Your task to perform on an android device: open wifi settings Image 0: 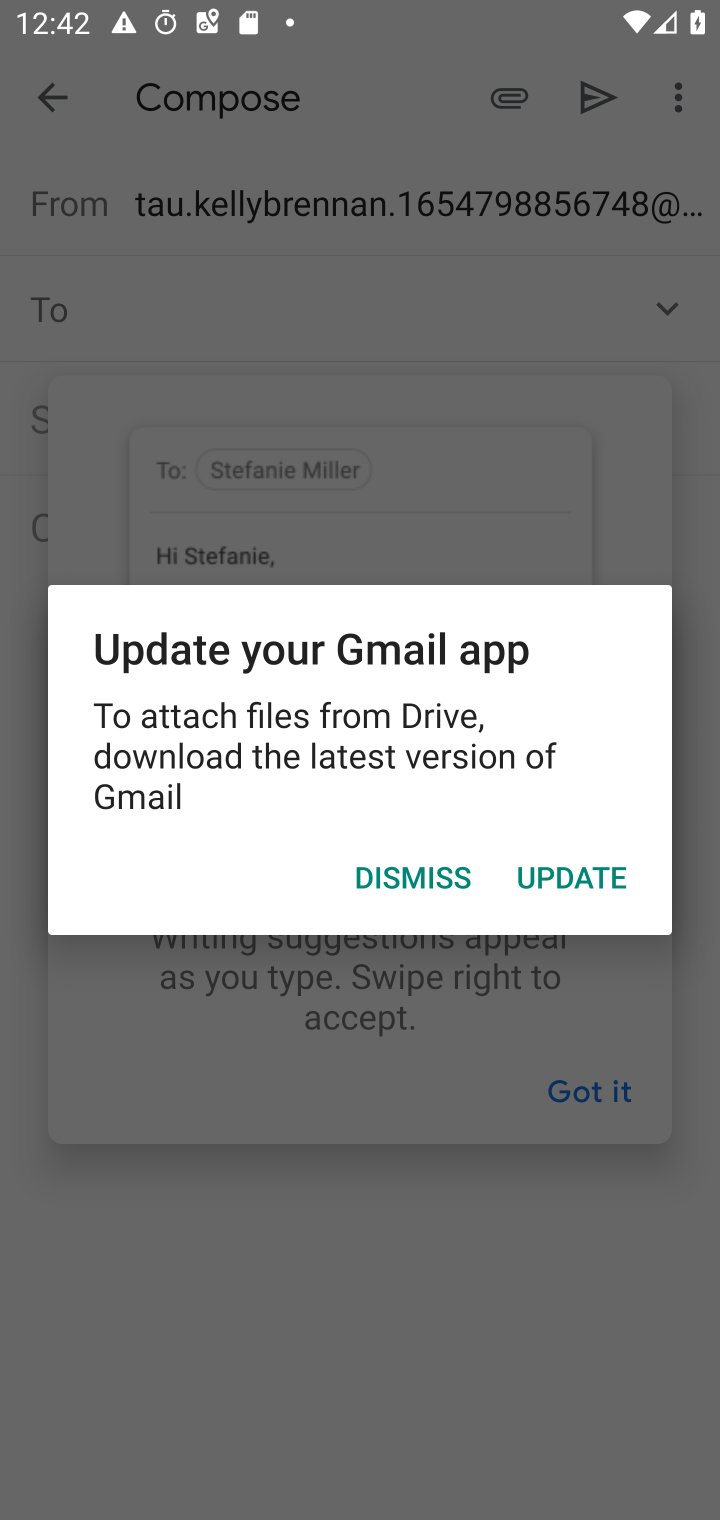
Step 0: press home button
Your task to perform on an android device: open wifi settings Image 1: 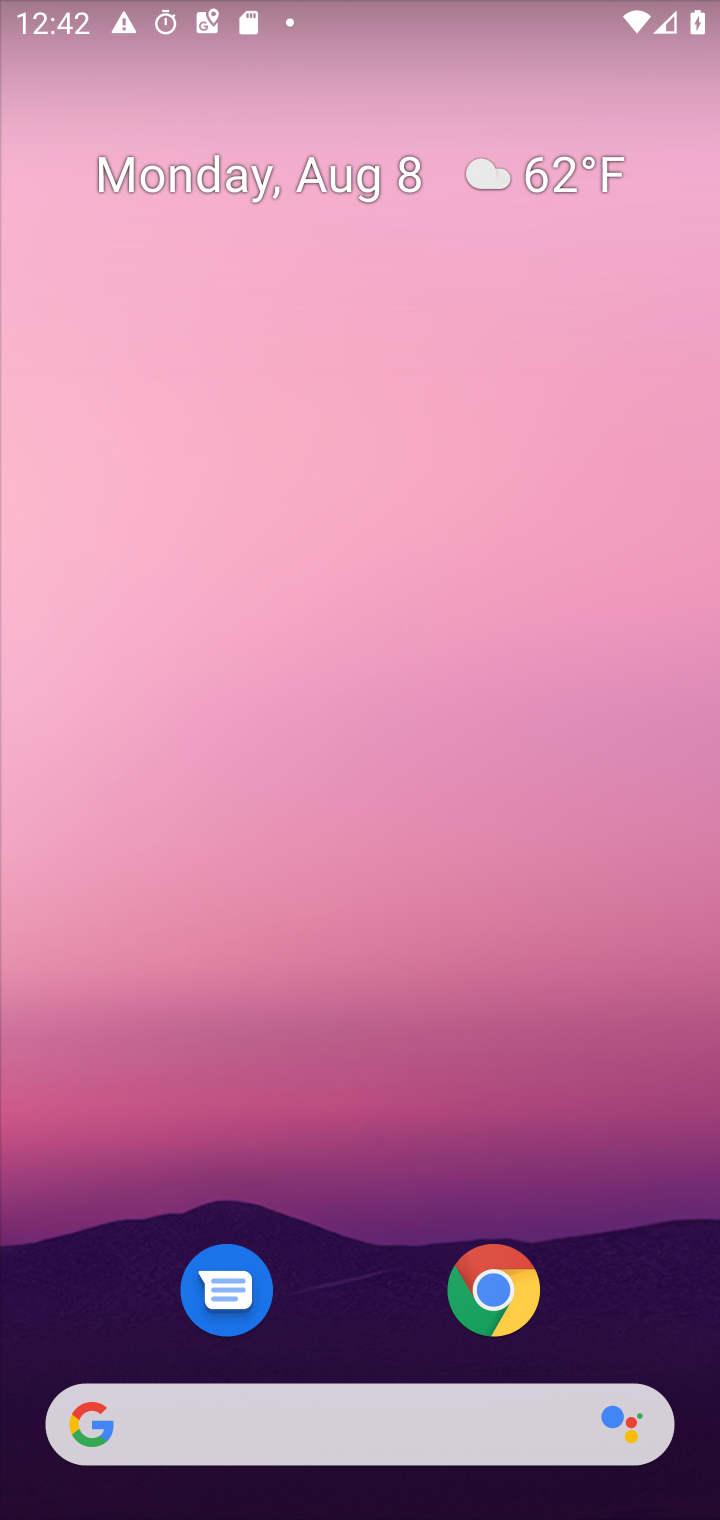
Step 1: press home button
Your task to perform on an android device: open wifi settings Image 2: 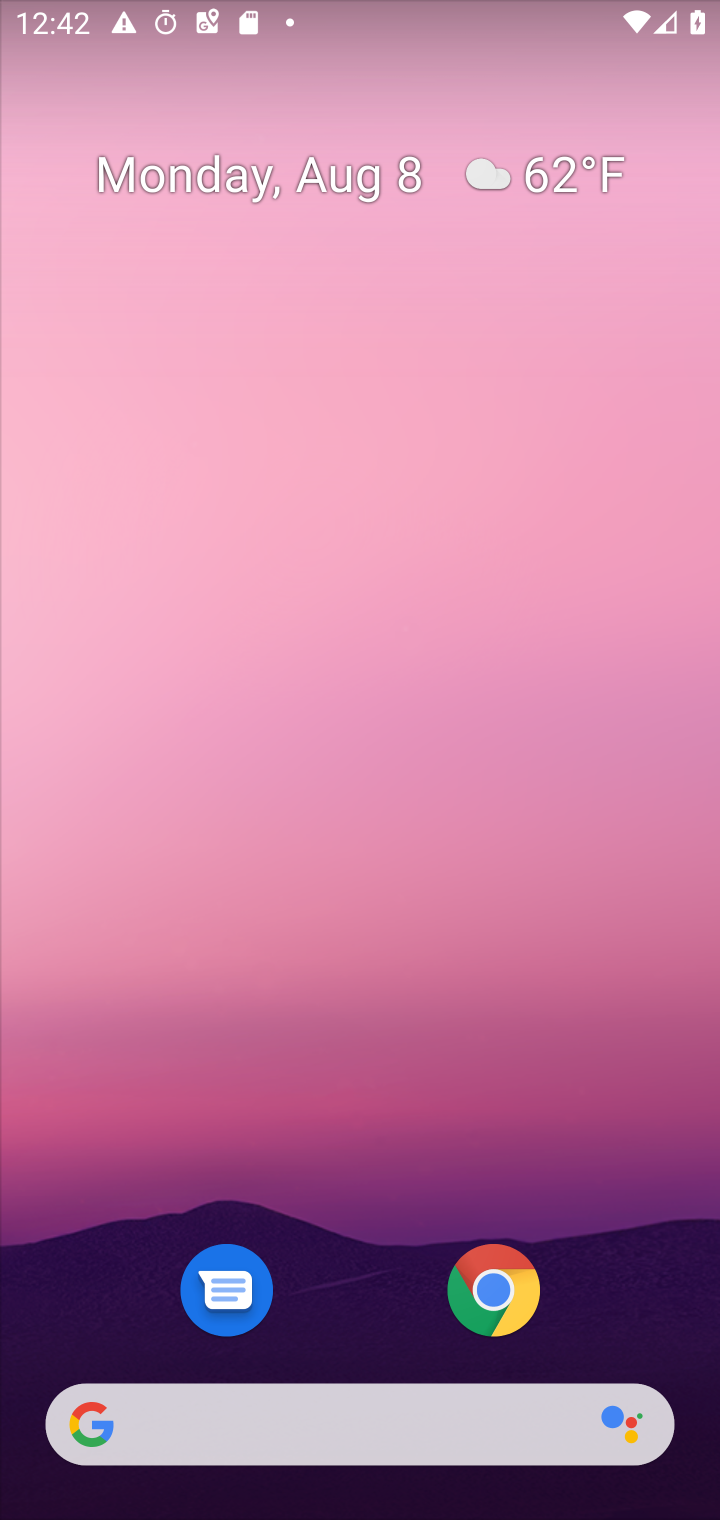
Step 2: click (296, 535)
Your task to perform on an android device: open wifi settings Image 3: 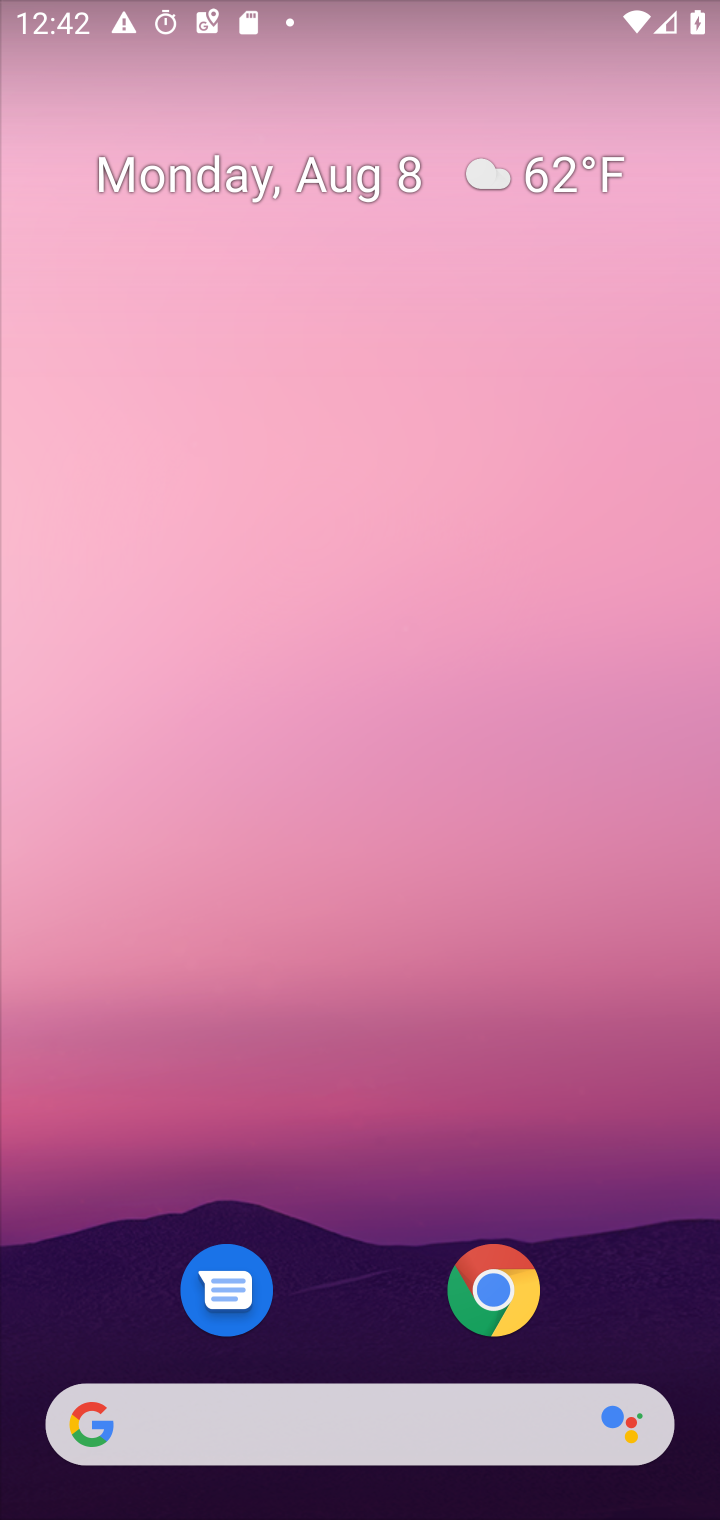
Step 3: drag from (380, 565) to (540, 0)
Your task to perform on an android device: open wifi settings Image 4: 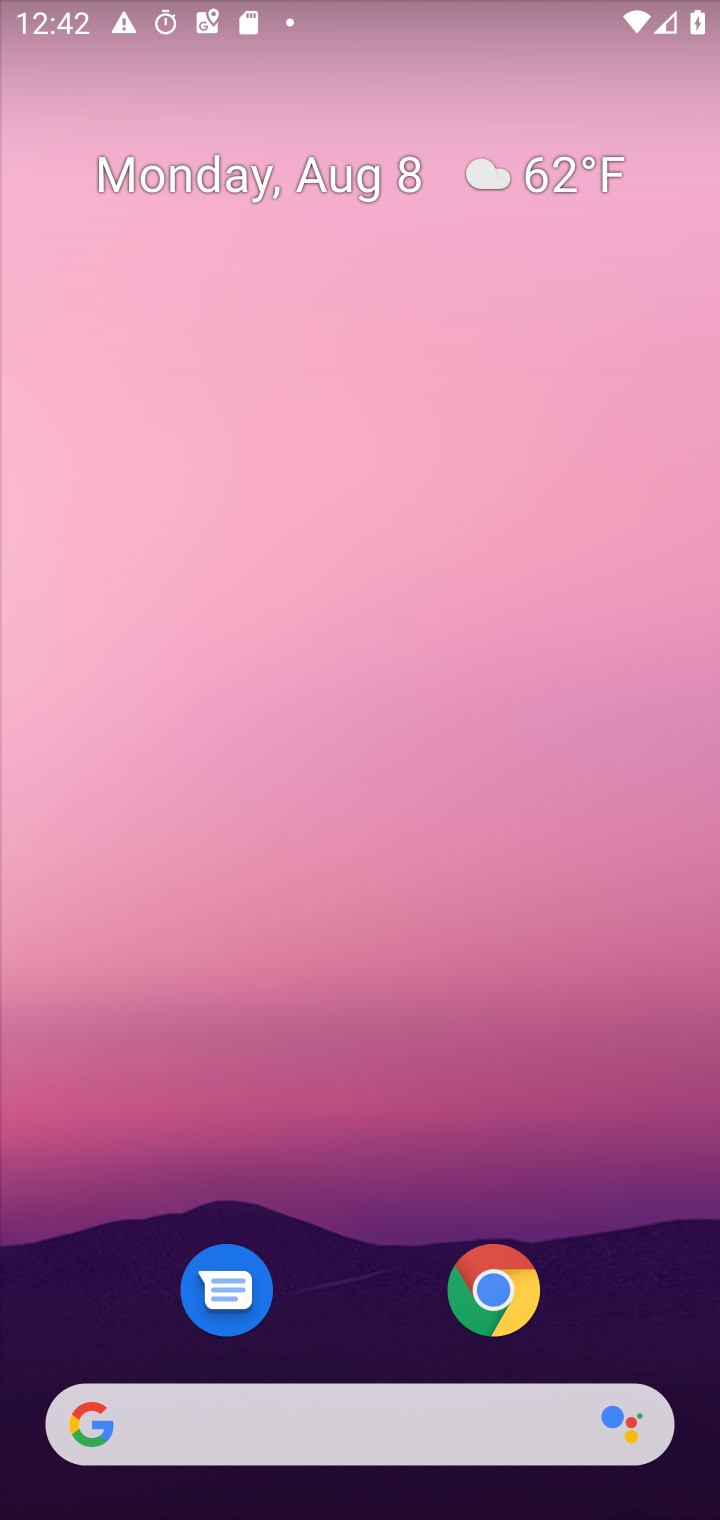
Step 4: drag from (319, 509) to (389, 112)
Your task to perform on an android device: open wifi settings Image 5: 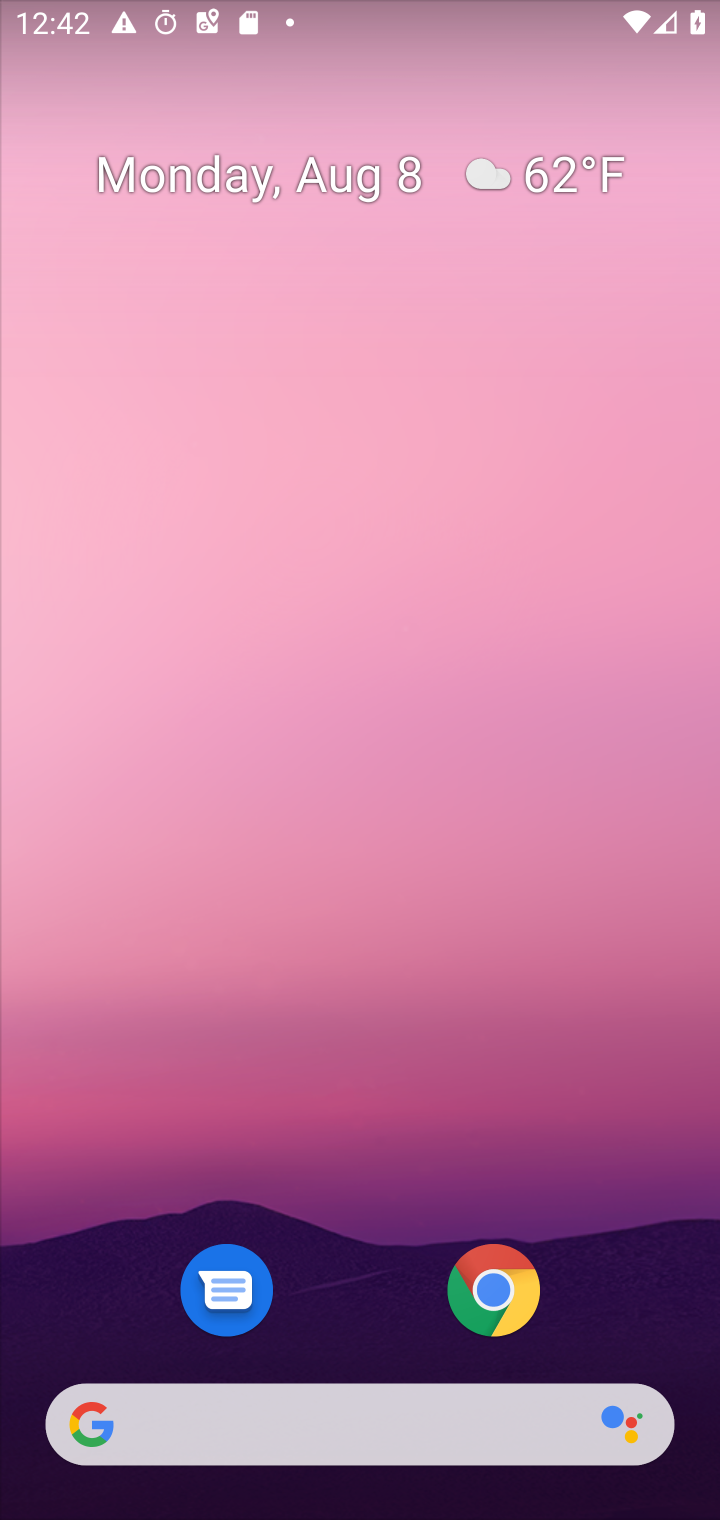
Step 5: drag from (356, 1234) to (411, 97)
Your task to perform on an android device: open wifi settings Image 6: 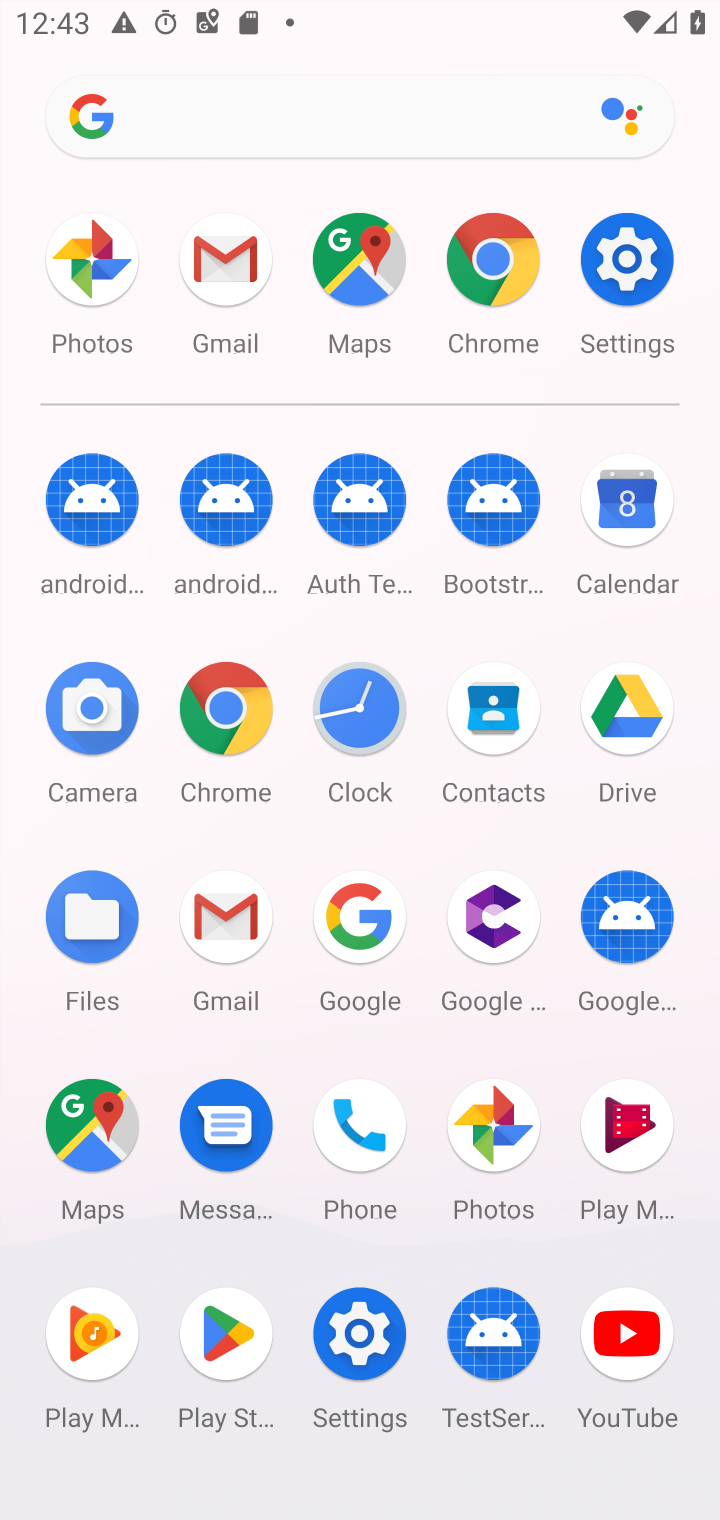
Step 6: click (605, 320)
Your task to perform on an android device: open wifi settings Image 7: 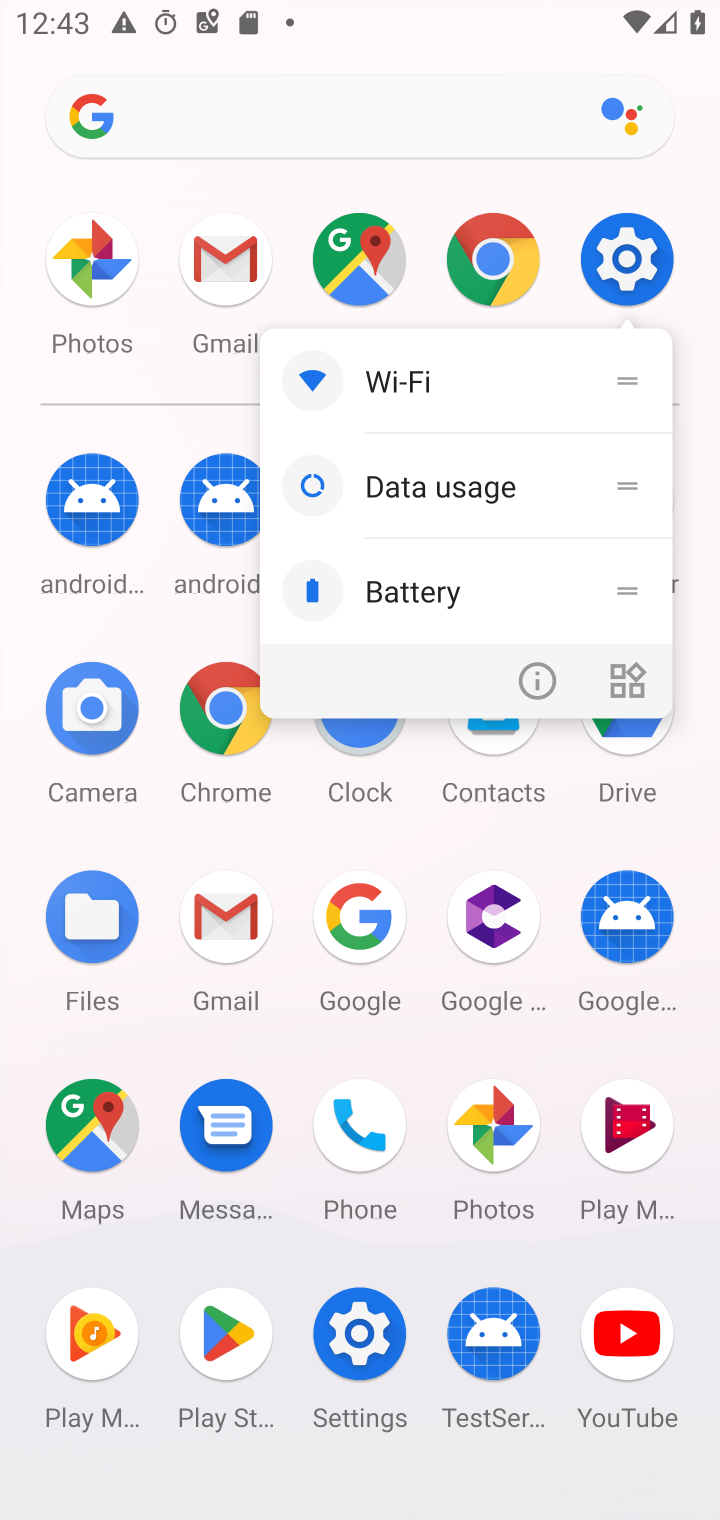
Step 7: click (636, 263)
Your task to perform on an android device: open wifi settings Image 8: 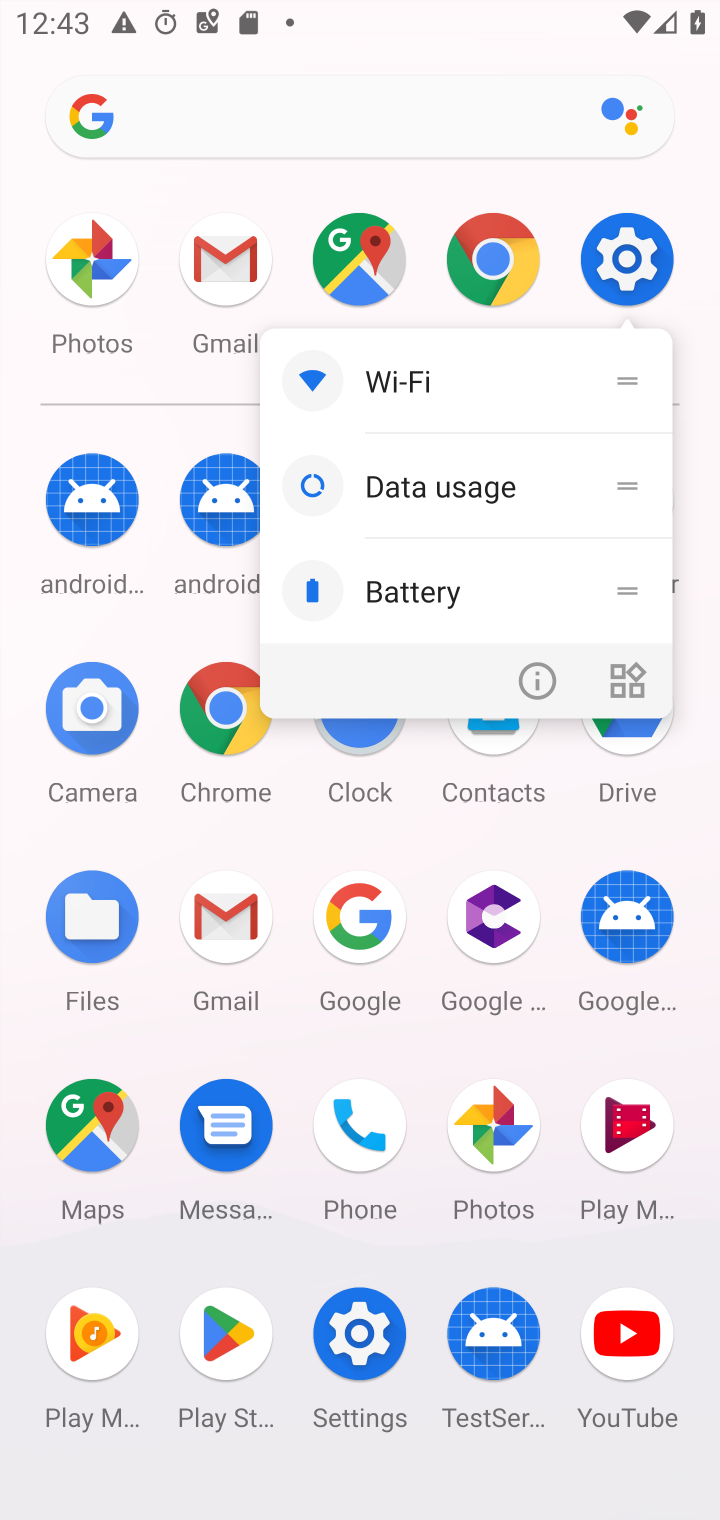
Step 8: click (636, 263)
Your task to perform on an android device: open wifi settings Image 9: 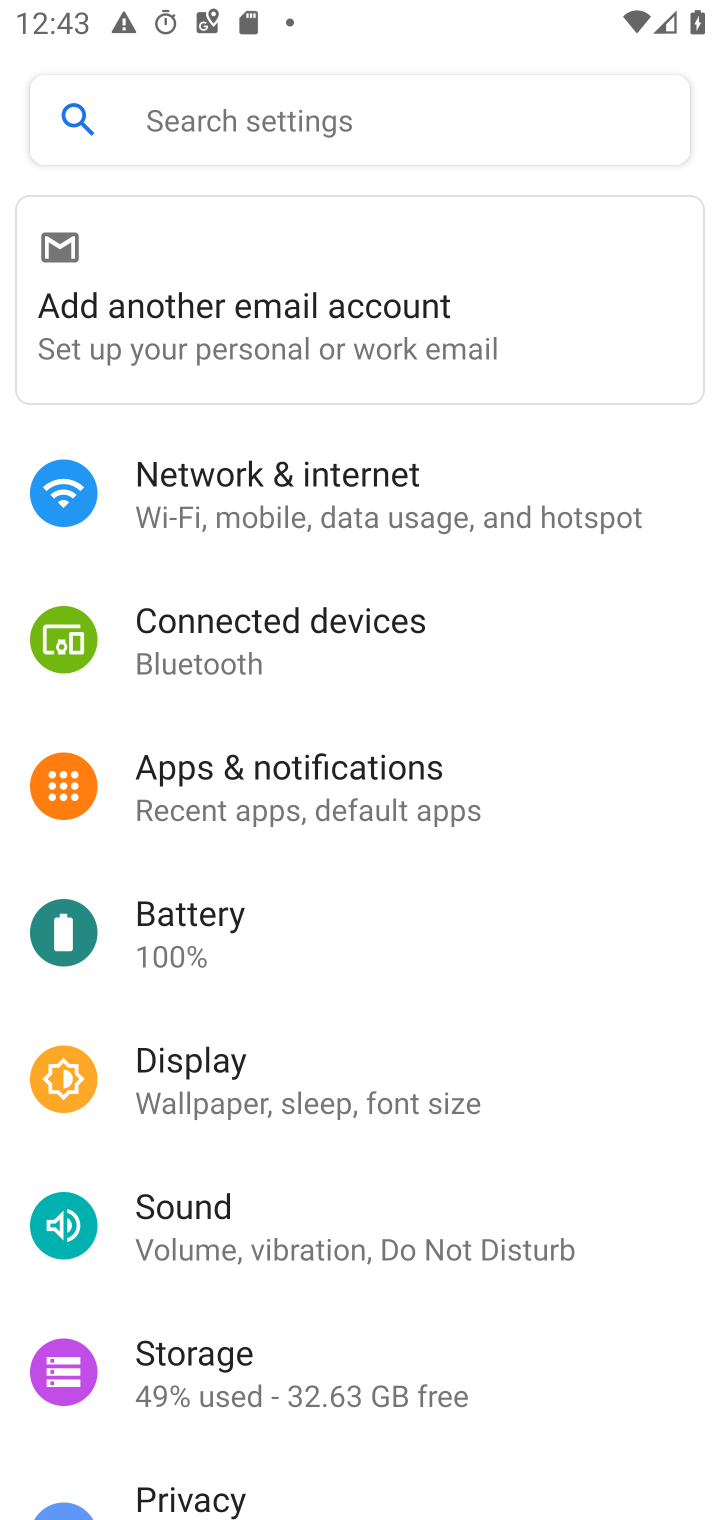
Step 9: click (309, 514)
Your task to perform on an android device: open wifi settings Image 10: 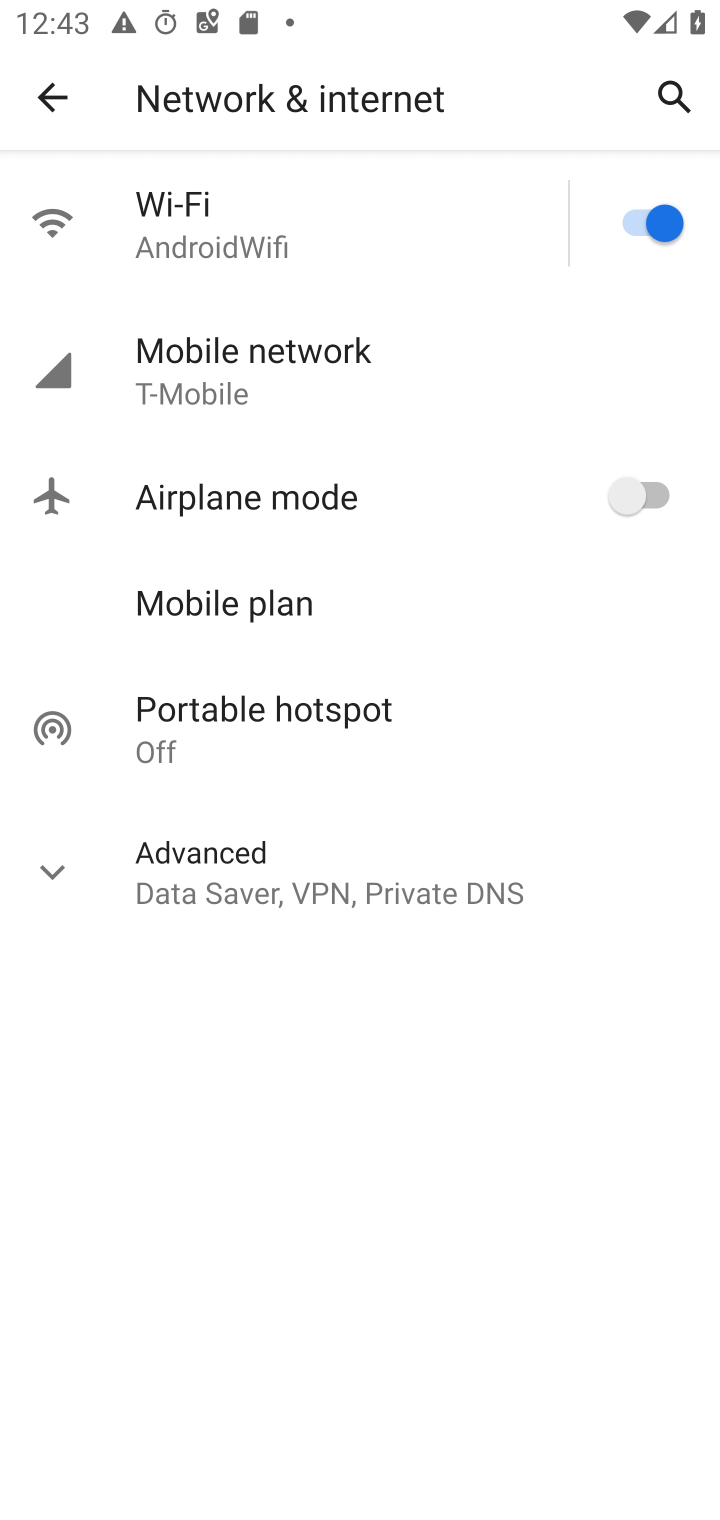
Step 10: click (208, 232)
Your task to perform on an android device: open wifi settings Image 11: 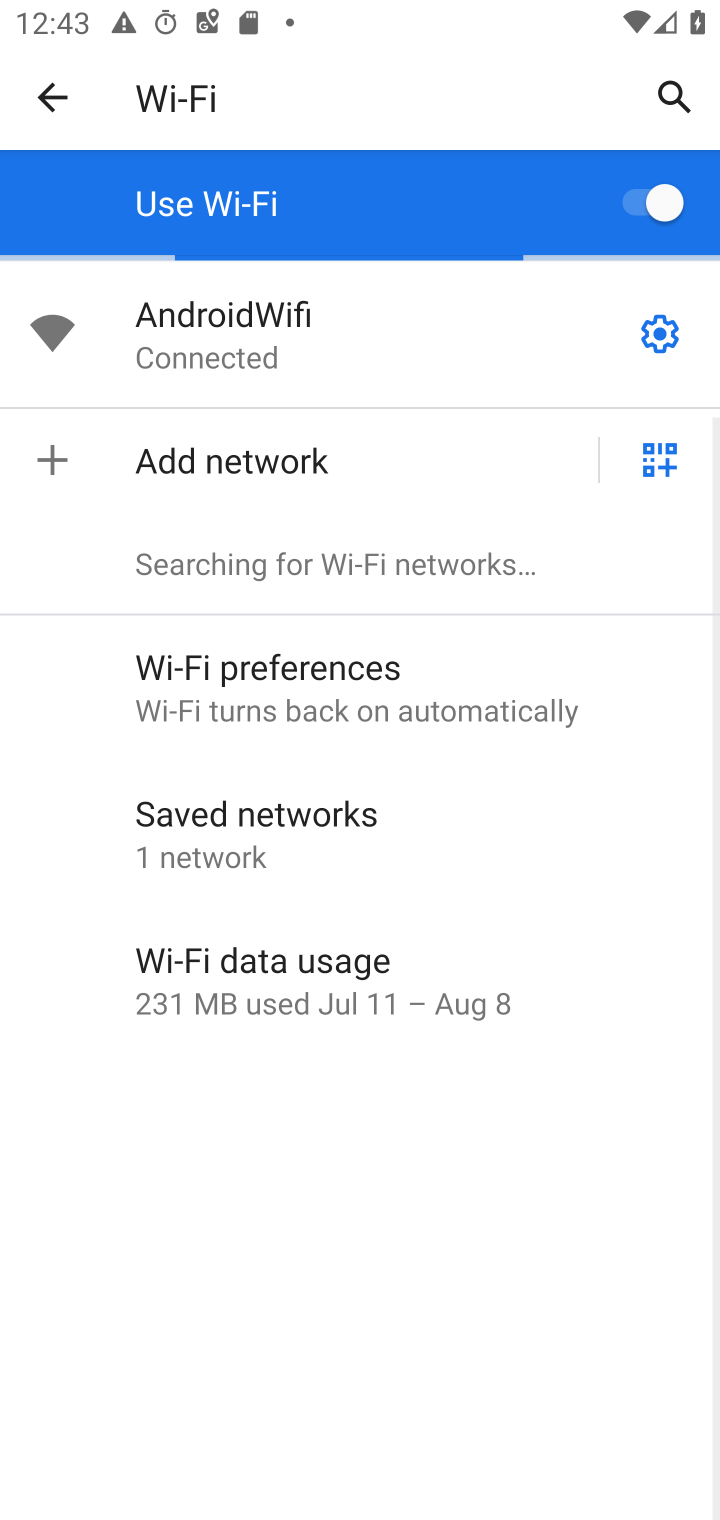
Step 11: task complete